Your task to perform on an android device: Turn off the flashlight Image 0: 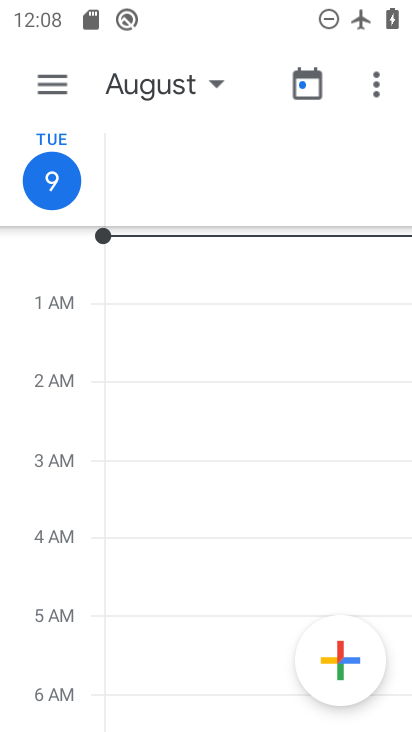
Step 0: press home button
Your task to perform on an android device: Turn off the flashlight Image 1: 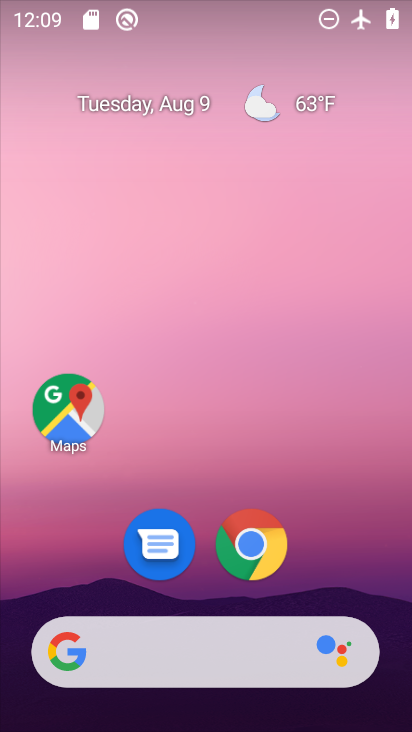
Step 1: drag from (183, 646) to (215, 119)
Your task to perform on an android device: Turn off the flashlight Image 2: 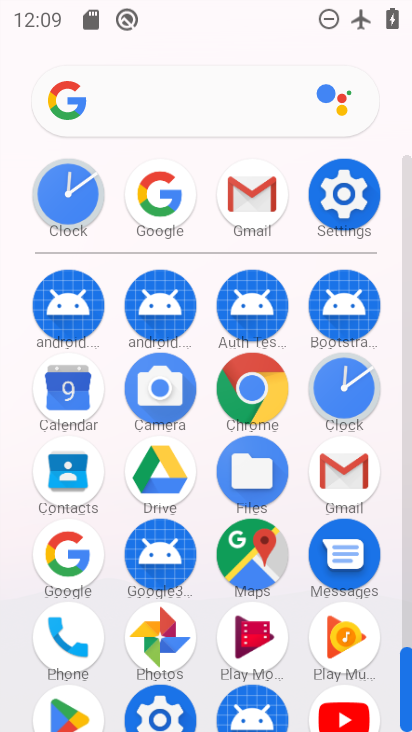
Step 2: click (342, 191)
Your task to perform on an android device: Turn off the flashlight Image 3: 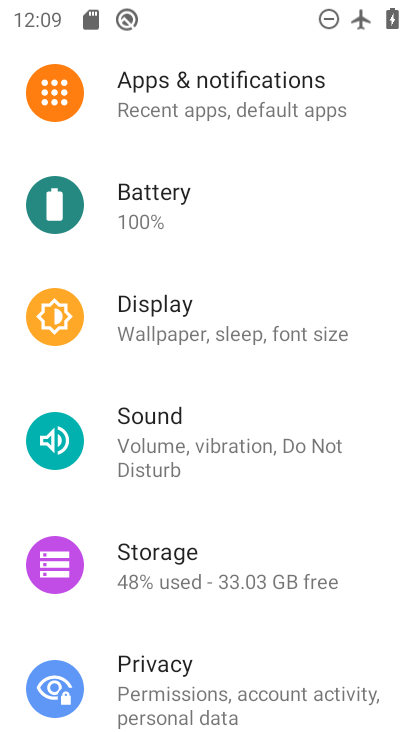
Step 3: drag from (166, 596) to (285, 422)
Your task to perform on an android device: Turn off the flashlight Image 4: 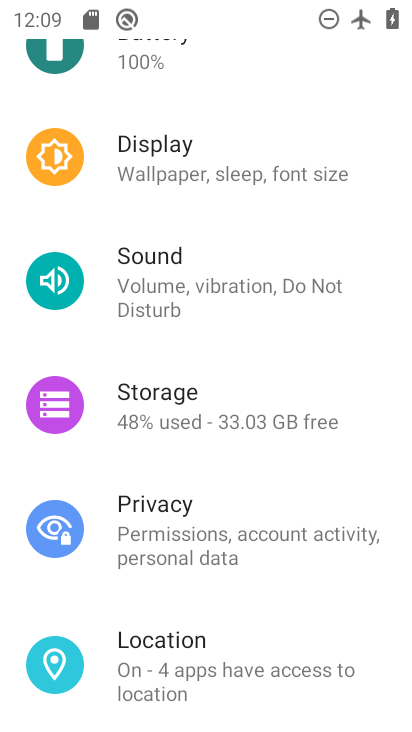
Step 4: drag from (192, 472) to (269, 350)
Your task to perform on an android device: Turn off the flashlight Image 5: 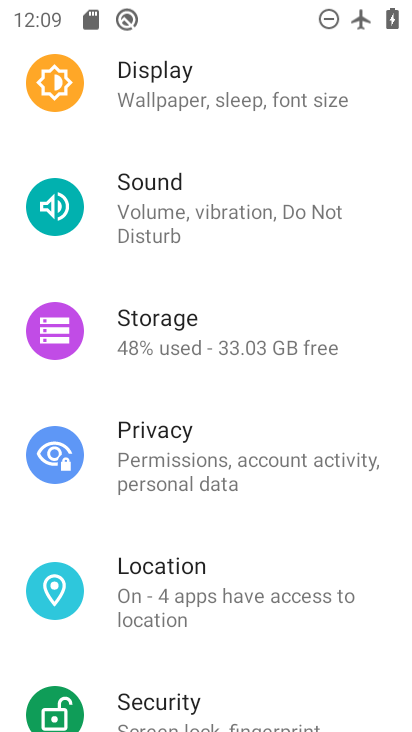
Step 5: drag from (202, 507) to (278, 322)
Your task to perform on an android device: Turn off the flashlight Image 6: 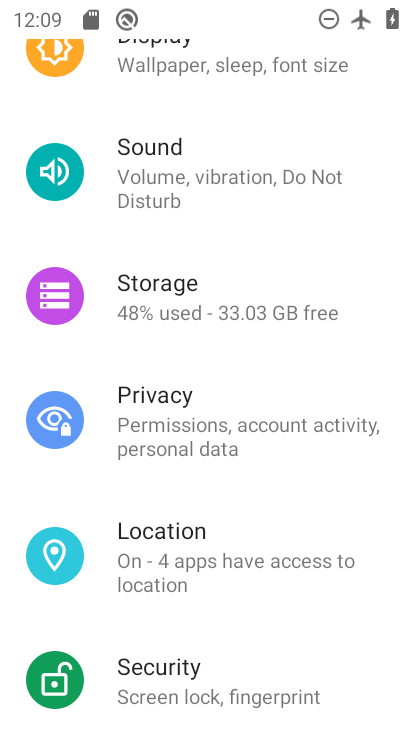
Step 6: drag from (176, 513) to (254, 384)
Your task to perform on an android device: Turn off the flashlight Image 7: 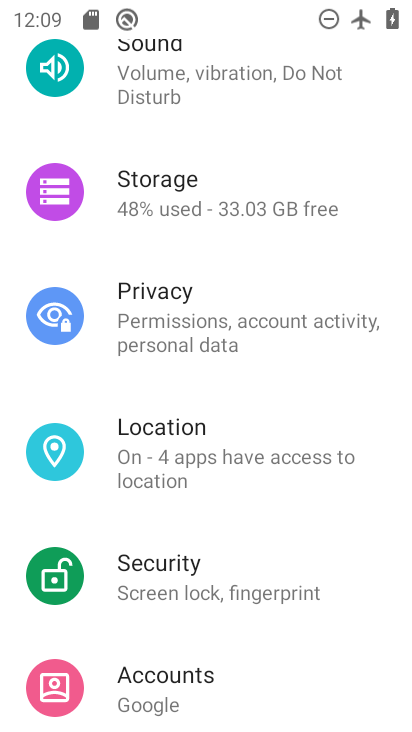
Step 7: drag from (169, 518) to (224, 418)
Your task to perform on an android device: Turn off the flashlight Image 8: 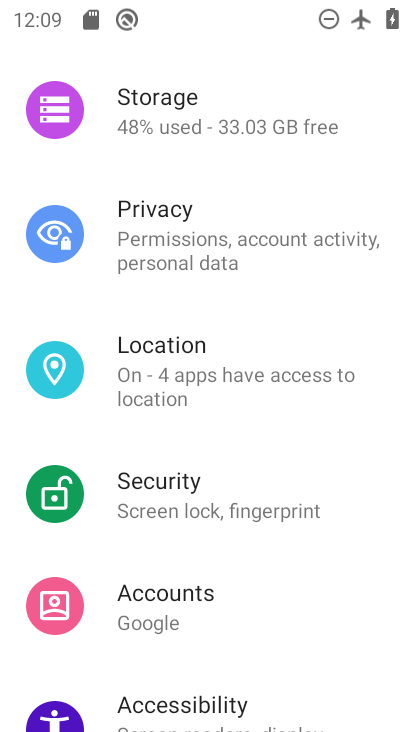
Step 8: drag from (160, 549) to (247, 423)
Your task to perform on an android device: Turn off the flashlight Image 9: 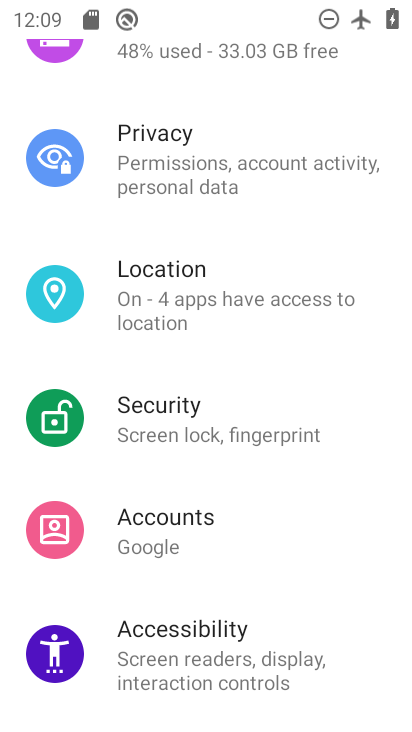
Step 9: drag from (200, 479) to (267, 376)
Your task to perform on an android device: Turn off the flashlight Image 10: 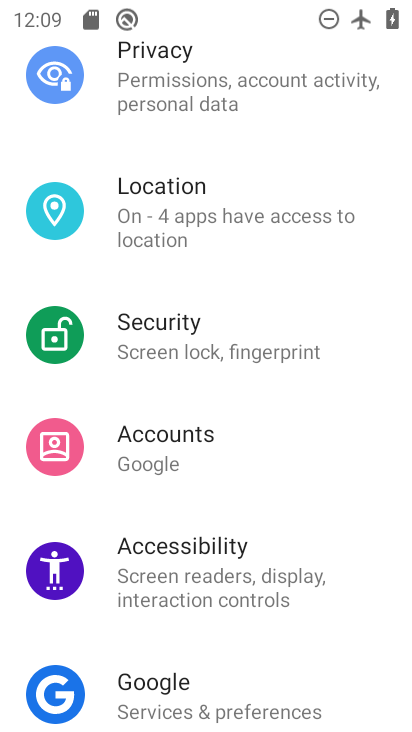
Step 10: drag from (163, 502) to (266, 371)
Your task to perform on an android device: Turn off the flashlight Image 11: 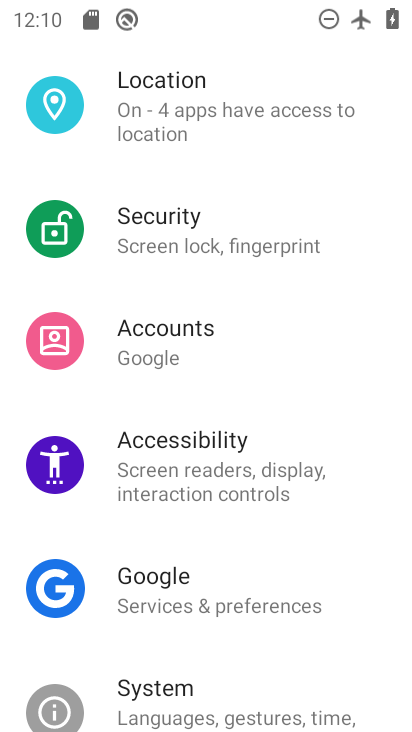
Step 11: drag from (301, 157) to (253, 449)
Your task to perform on an android device: Turn off the flashlight Image 12: 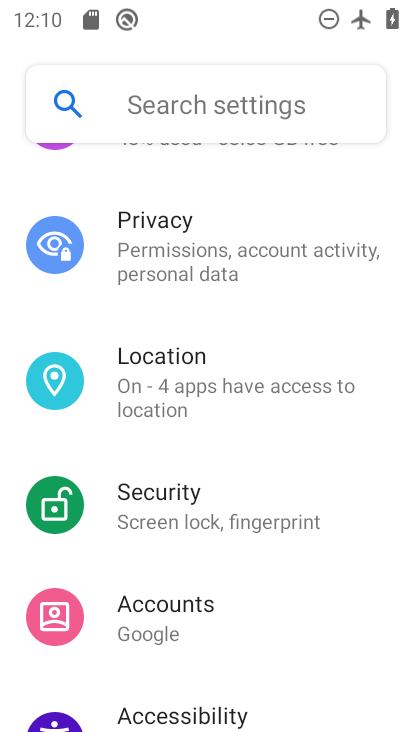
Step 12: drag from (255, 215) to (197, 523)
Your task to perform on an android device: Turn off the flashlight Image 13: 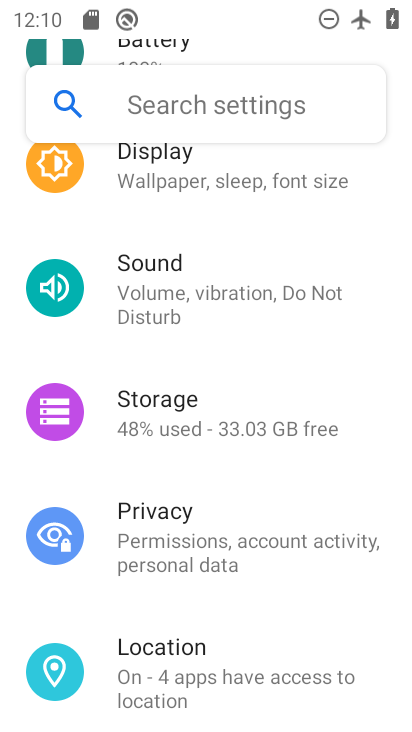
Step 13: click (206, 112)
Your task to perform on an android device: Turn off the flashlight Image 14: 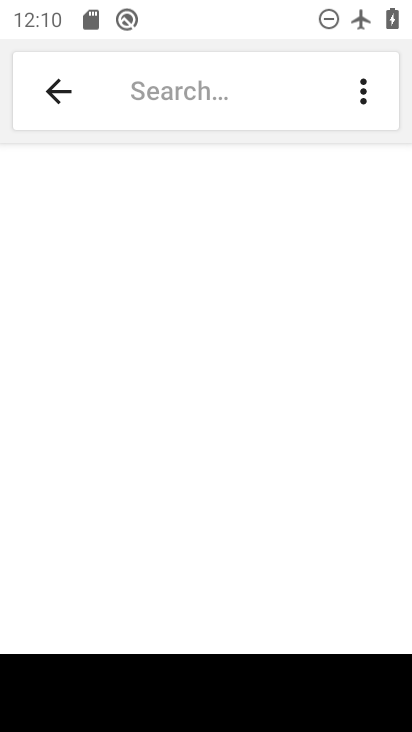
Step 14: type "flashlight"
Your task to perform on an android device: Turn off the flashlight Image 15: 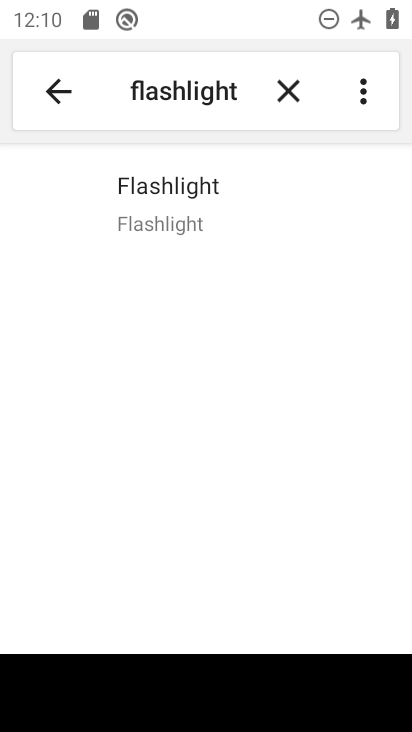
Step 15: click (177, 214)
Your task to perform on an android device: Turn off the flashlight Image 16: 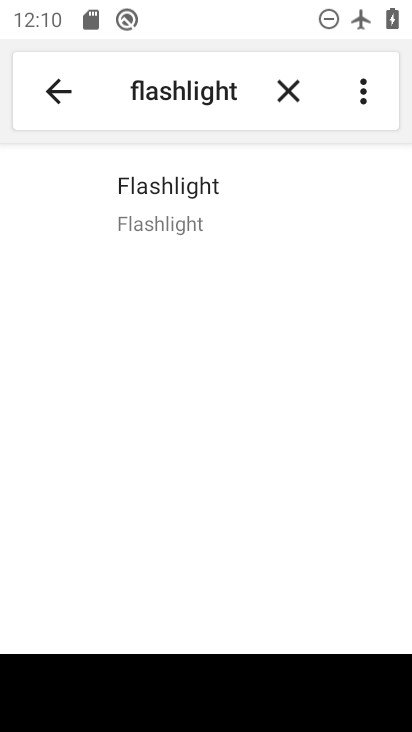
Step 16: task complete